Your task to perform on an android device: add a contact in the contacts app Image 0: 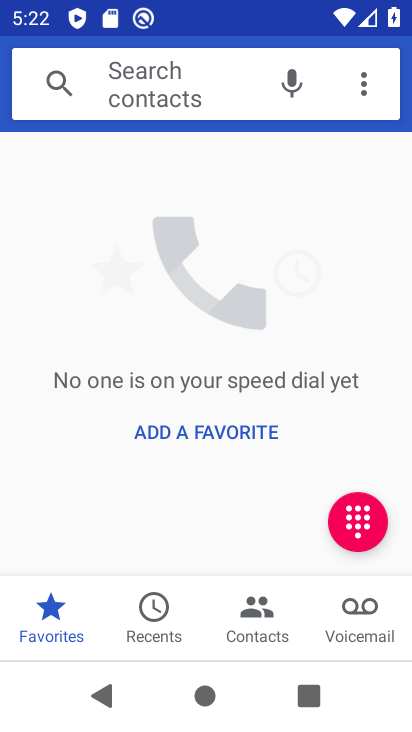
Step 0: press home button
Your task to perform on an android device: add a contact in the contacts app Image 1: 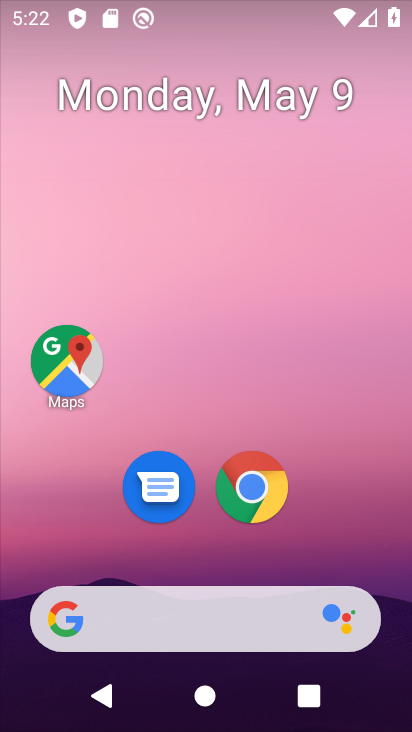
Step 1: drag from (331, 572) to (293, 155)
Your task to perform on an android device: add a contact in the contacts app Image 2: 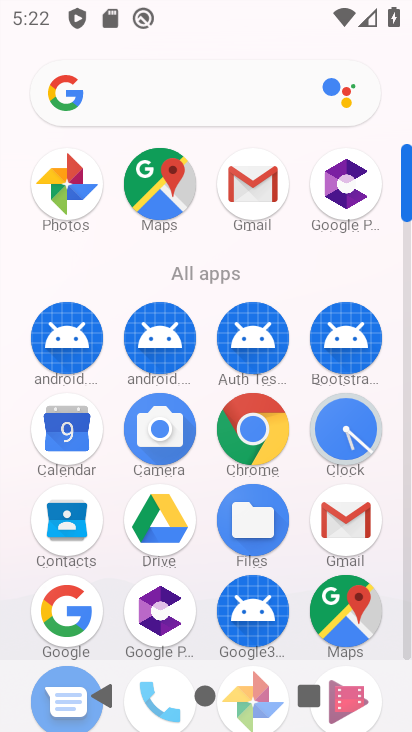
Step 2: drag from (303, 645) to (268, 257)
Your task to perform on an android device: add a contact in the contacts app Image 3: 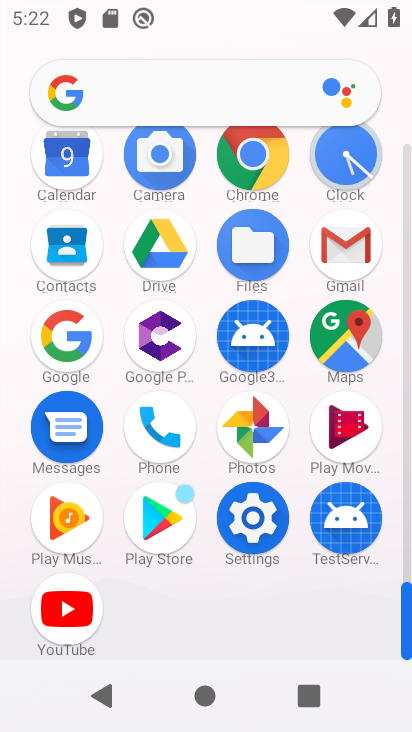
Step 3: drag from (306, 180) to (229, 656)
Your task to perform on an android device: add a contact in the contacts app Image 4: 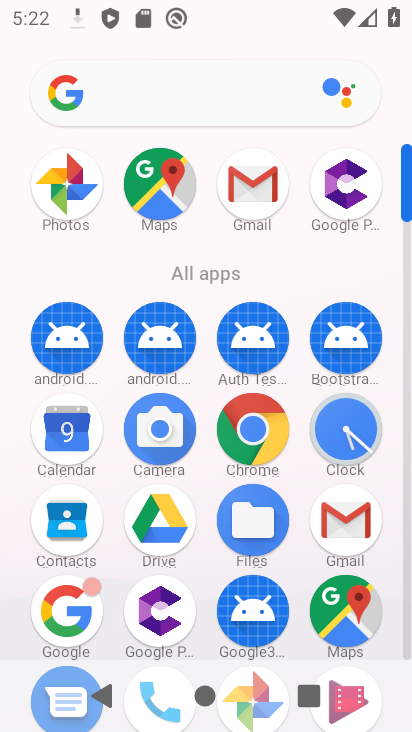
Step 4: drag from (297, 259) to (300, 556)
Your task to perform on an android device: add a contact in the contacts app Image 5: 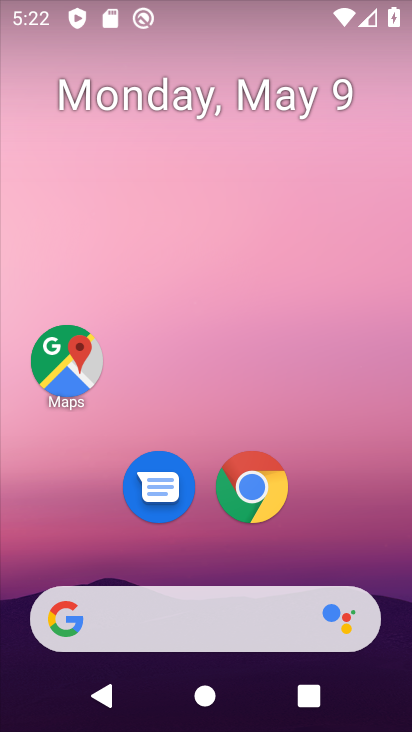
Step 5: drag from (312, 496) to (251, 71)
Your task to perform on an android device: add a contact in the contacts app Image 6: 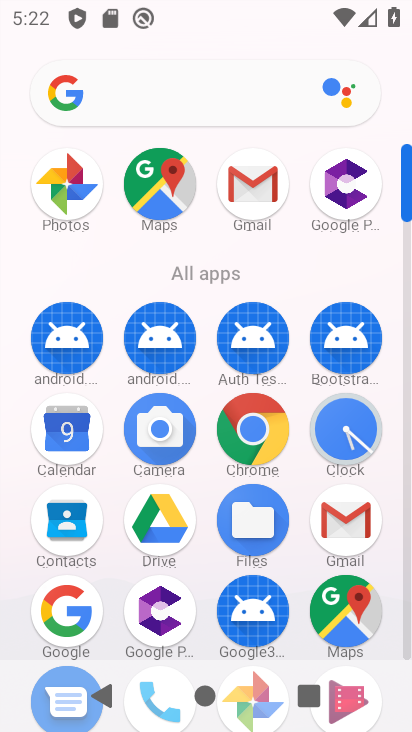
Step 6: drag from (267, 554) to (251, 308)
Your task to perform on an android device: add a contact in the contacts app Image 7: 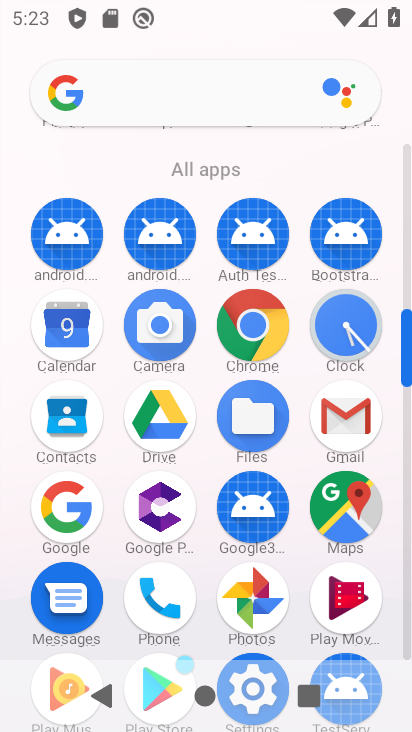
Step 7: drag from (216, 590) to (173, 103)
Your task to perform on an android device: add a contact in the contacts app Image 8: 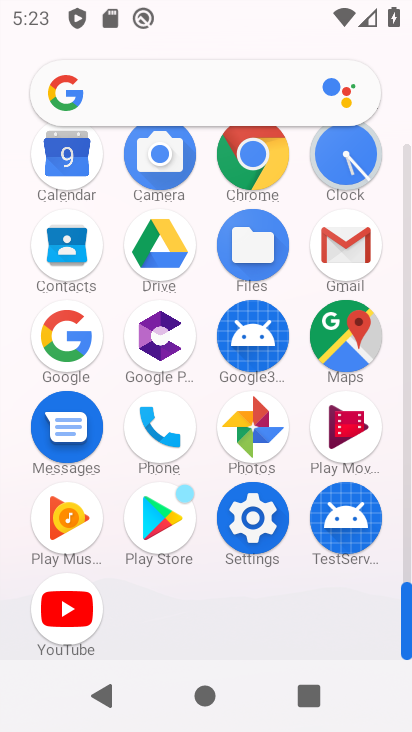
Step 8: press home button
Your task to perform on an android device: add a contact in the contacts app Image 9: 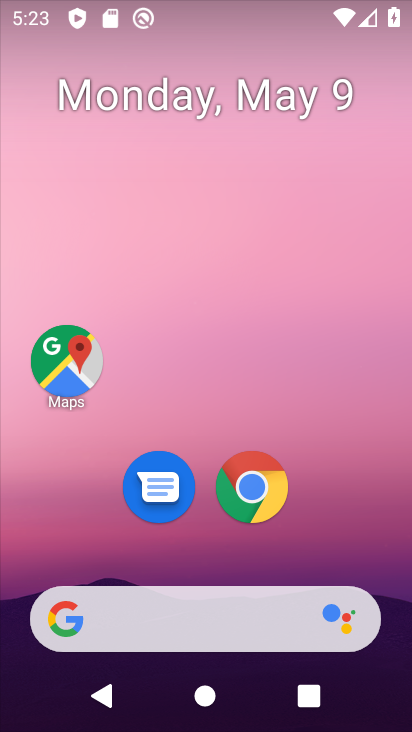
Step 9: drag from (300, 520) to (221, 36)
Your task to perform on an android device: add a contact in the contacts app Image 10: 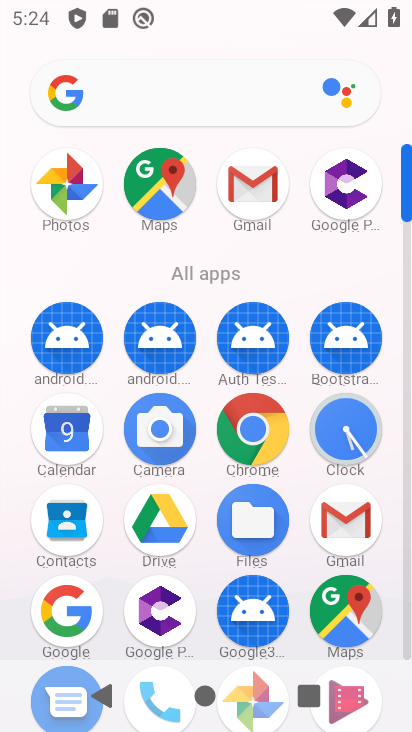
Step 10: drag from (290, 576) to (304, 202)
Your task to perform on an android device: add a contact in the contacts app Image 11: 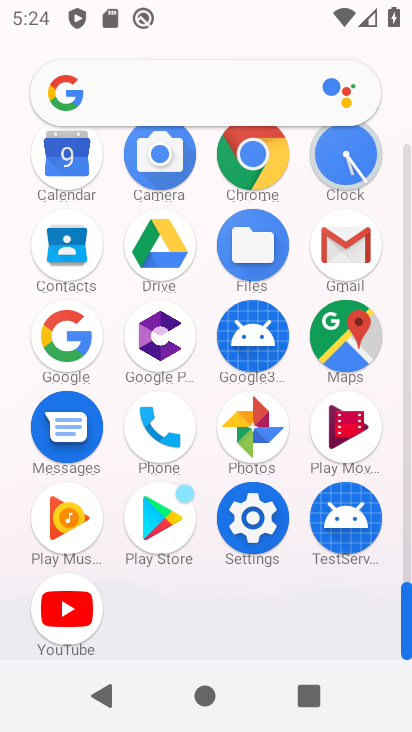
Step 11: click (73, 247)
Your task to perform on an android device: add a contact in the contacts app Image 12: 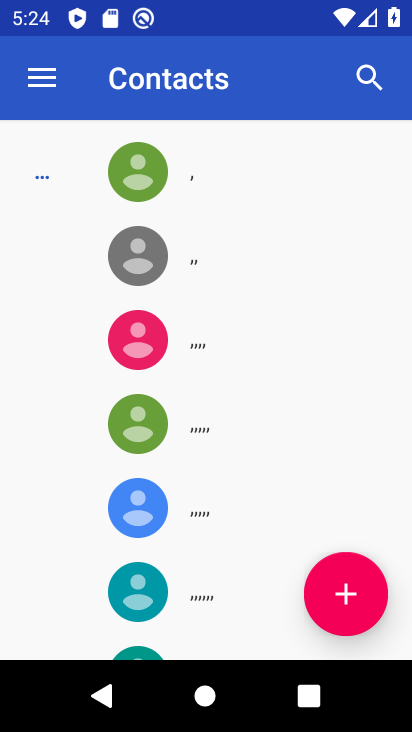
Step 12: click (358, 601)
Your task to perform on an android device: add a contact in the contacts app Image 13: 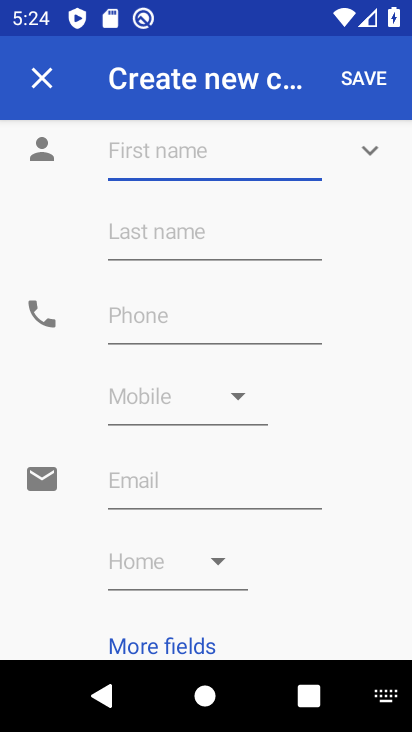
Step 13: click (168, 167)
Your task to perform on an android device: add a contact in the contacts app Image 14: 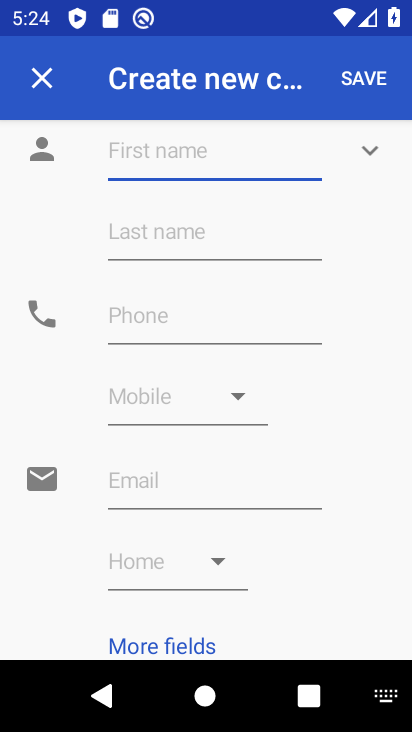
Step 14: type "Annu"
Your task to perform on an android device: add a contact in the contacts app Image 15: 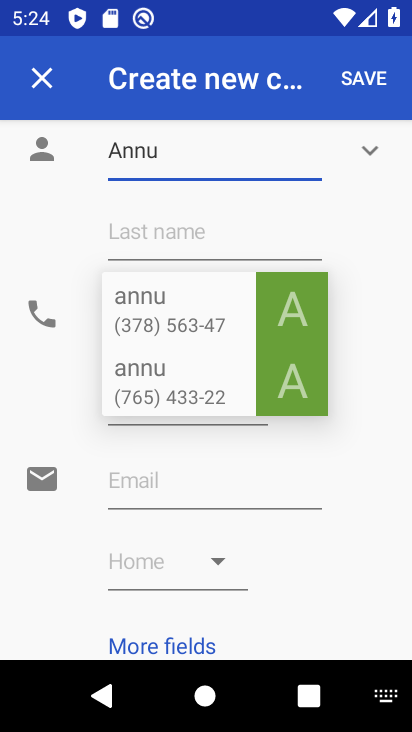
Step 15: click (168, 232)
Your task to perform on an android device: add a contact in the contacts app Image 16: 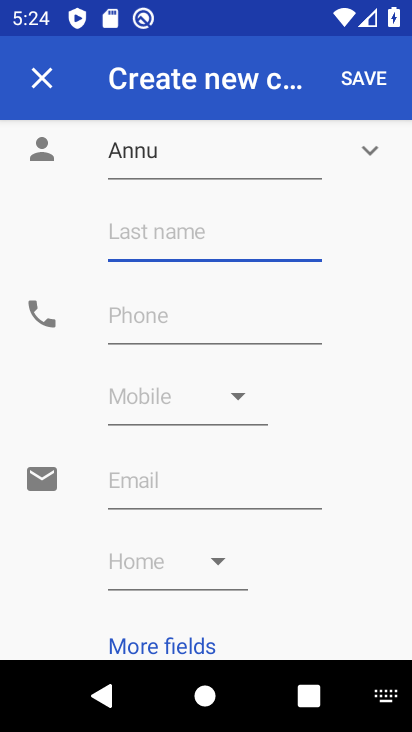
Step 16: type "babu"
Your task to perform on an android device: add a contact in the contacts app Image 17: 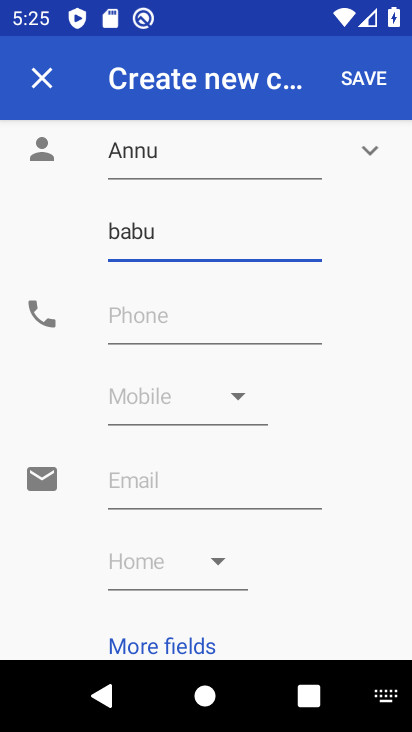
Step 17: click (250, 323)
Your task to perform on an android device: add a contact in the contacts app Image 18: 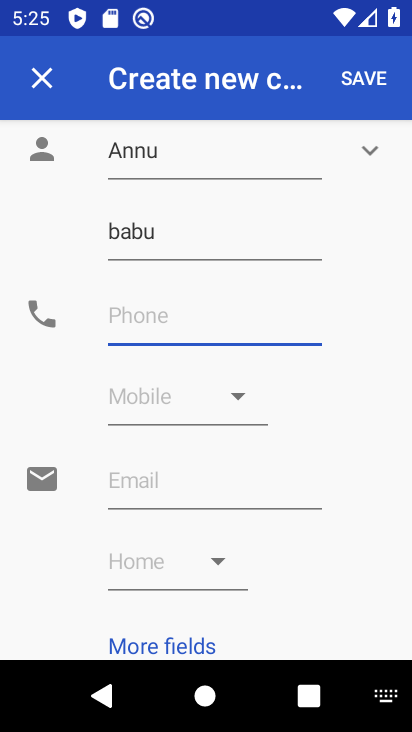
Step 18: type "9090090990"
Your task to perform on an android device: add a contact in the contacts app Image 19: 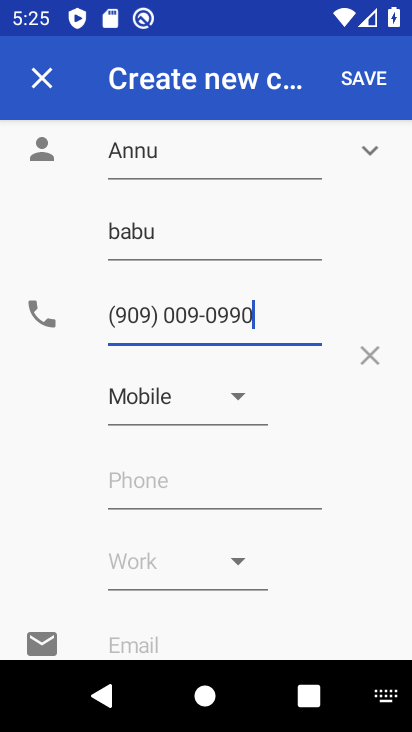
Step 19: task complete